Your task to perform on an android device: What is the recent news? Image 0: 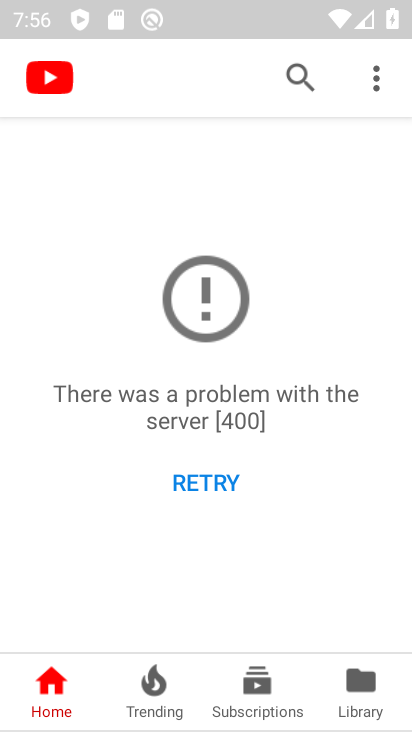
Step 0: press home button
Your task to perform on an android device: What is the recent news? Image 1: 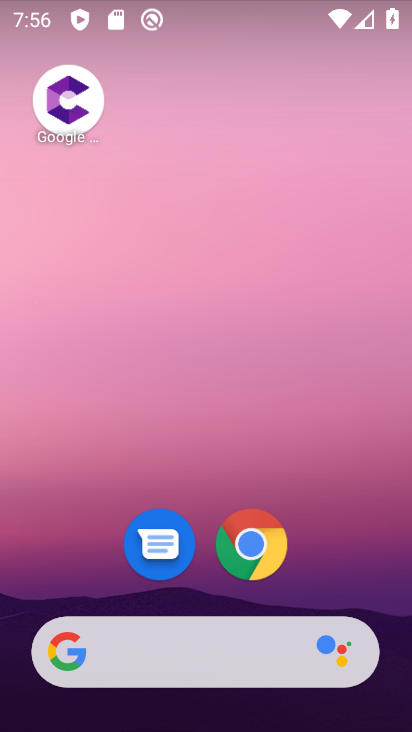
Step 1: click (257, 551)
Your task to perform on an android device: What is the recent news? Image 2: 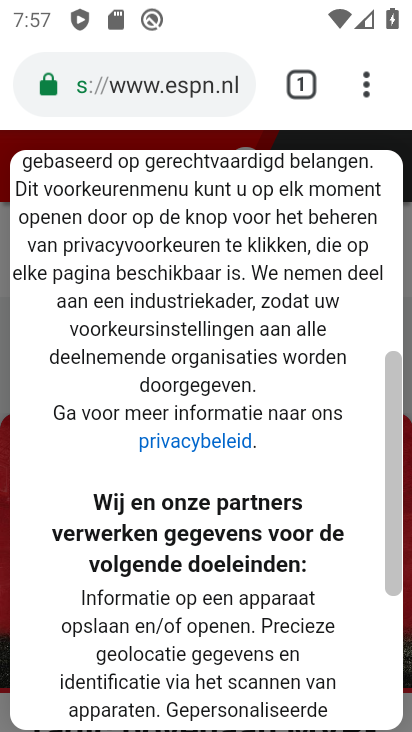
Step 2: click (183, 81)
Your task to perform on an android device: What is the recent news? Image 3: 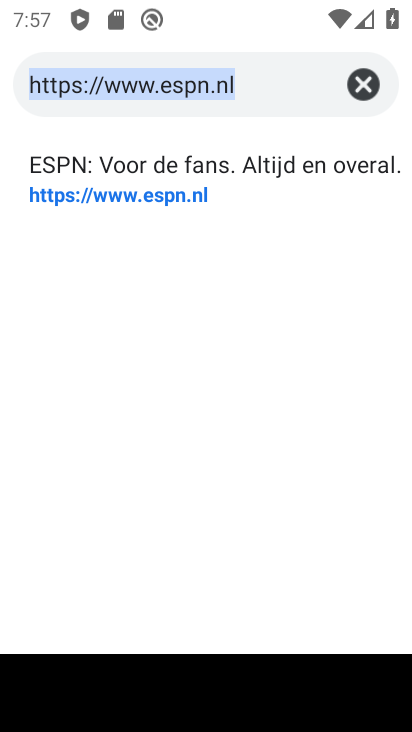
Step 3: type "news"
Your task to perform on an android device: What is the recent news? Image 4: 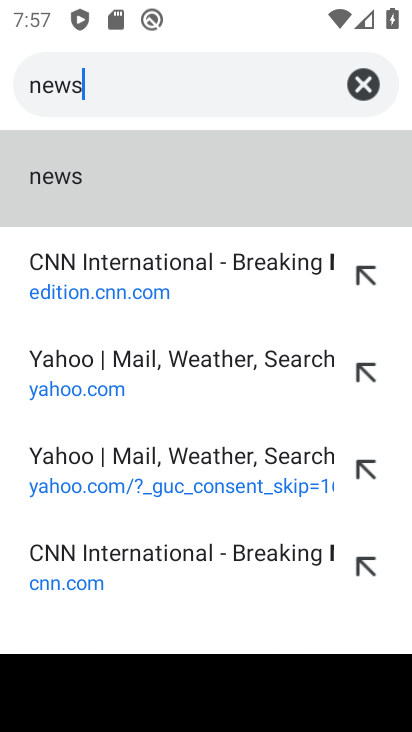
Step 4: click (92, 180)
Your task to perform on an android device: What is the recent news? Image 5: 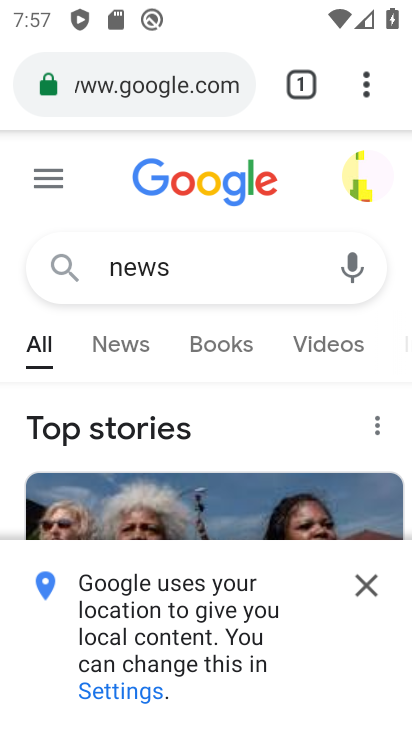
Step 5: click (134, 329)
Your task to perform on an android device: What is the recent news? Image 6: 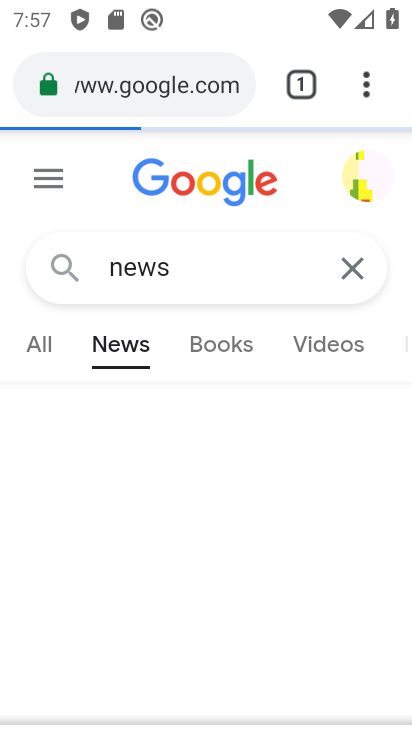
Step 6: click (122, 339)
Your task to perform on an android device: What is the recent news? Image 7: 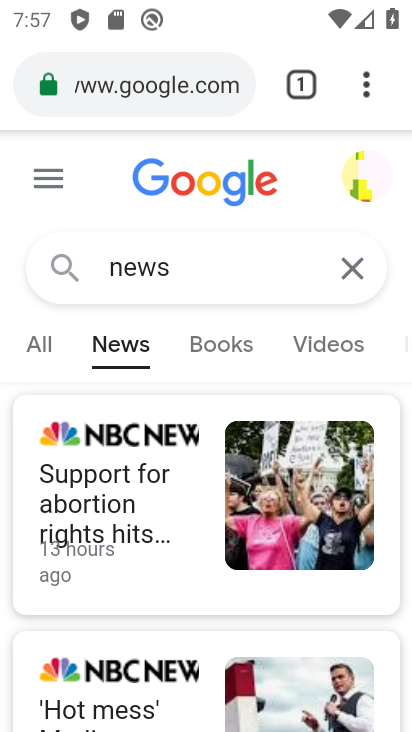
Step 7: task complete